Your task to perform on an android device: read, delete, or share a saved page in the chrome app Image 0: 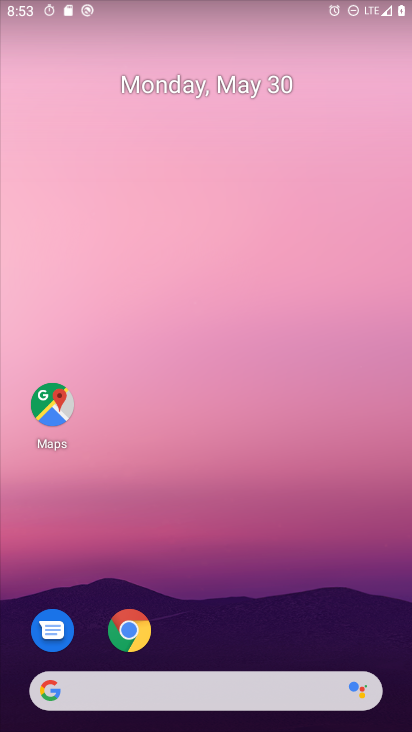
Step 0: drag from (312, 628) to (254, 64)
Your task to perform on an android device: read, delete, or share a saved page in the chrome app Image 1: 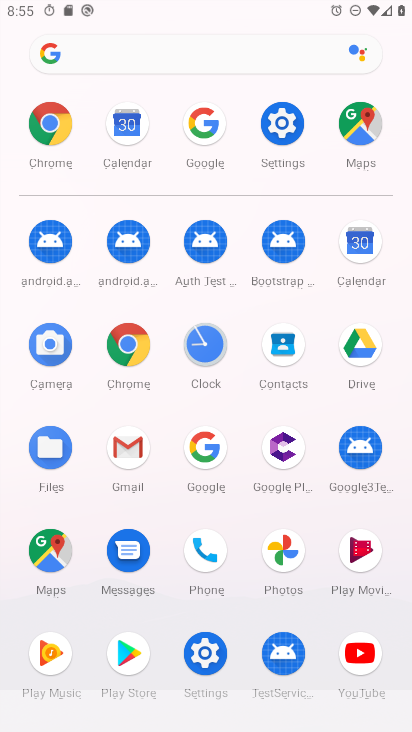
Step 1: task complete